Your task to perform on an android device: turn on javascript in the chrome app Image 0: 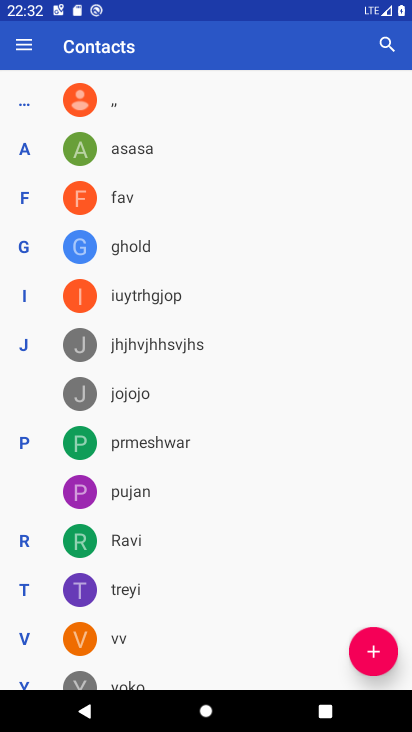
Step 0: press home button
Your task to perform on an android device: turn on javascript in the chrome app Image 1: 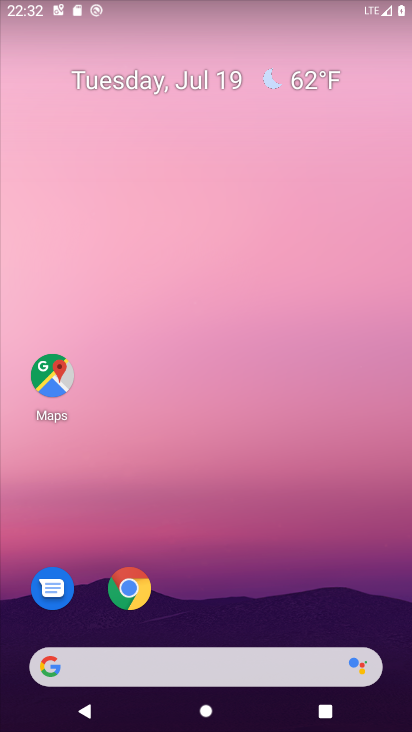
Step 1: click (134, 591)
Your task to perform on an android device: turn on javascript in the chrome app Image 2: 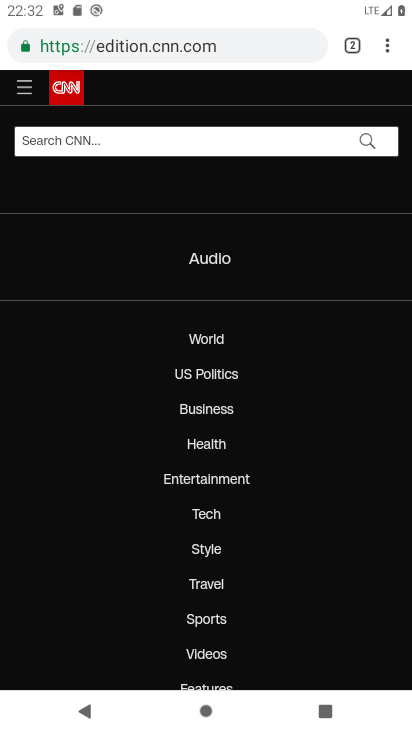
Step 2: click (389, 50)
Your task to perform on an android device: turn on javascript in the chrome app Image 3: 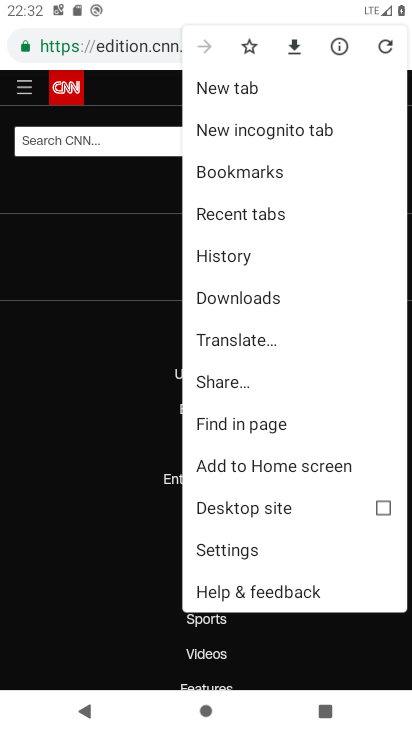
Step 3: click (221, 554)
Your task to perform on an android device: turn on javascript in the chrome app Image 4: 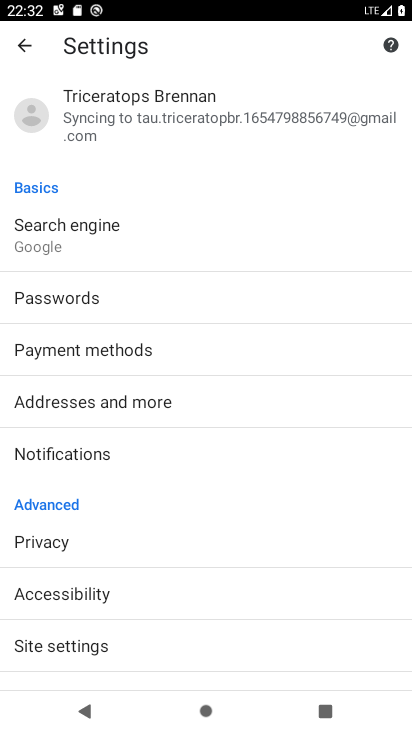
Step 4: click (75, 643)
Your task to perform on an android device: turn on javascript in the chrome app Image 5: 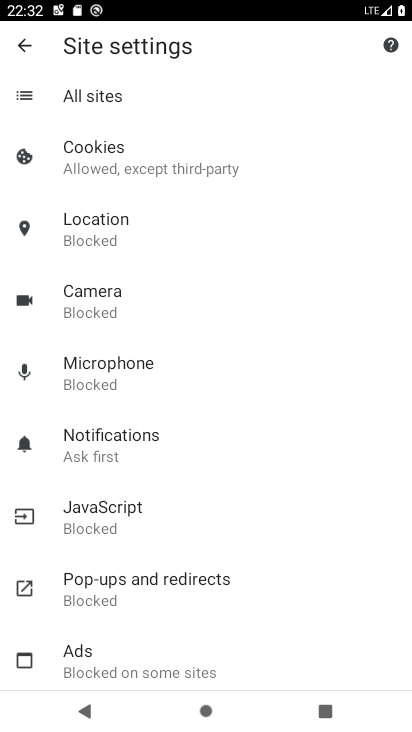
Step 5: click (75, 520)
Your task to perform on an android device: turn on javascript in the chrome app Image 6: 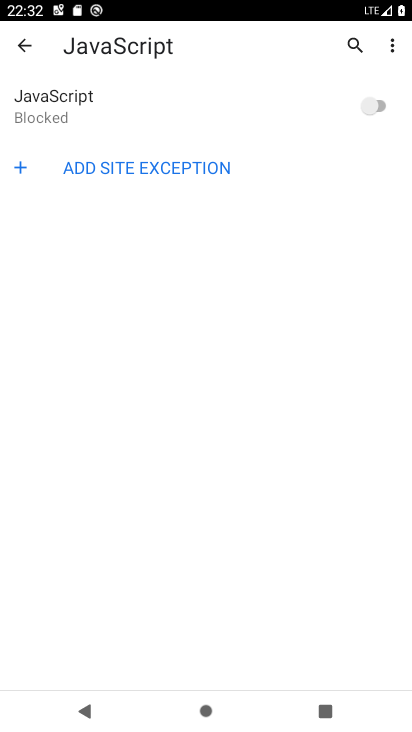
Step 6: click (381, 97)
Your task to perform on an android device: turn on javascript in the chrome app Image 7: 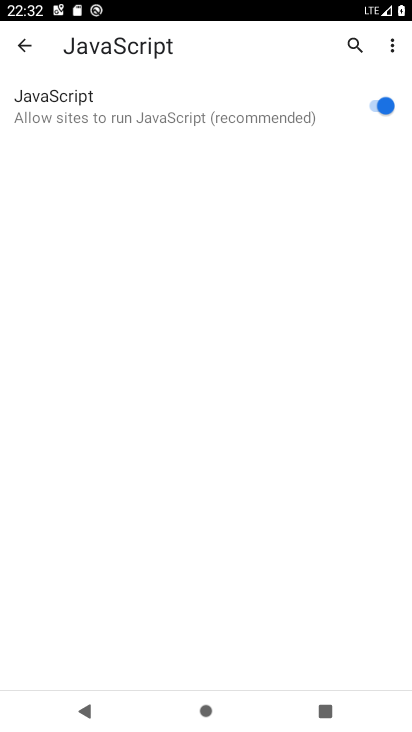
Step 7: task complete